Your task to perform on an android device: Open Google Chrome and open the bookmarks view Image 0: 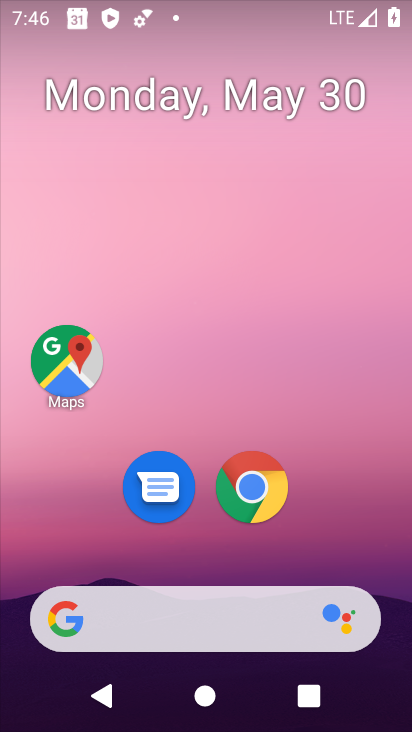
Step 0: click (250, 486)
Your task to perform on an android device: Open Google Chrome and open the bookmarks view Image 1: 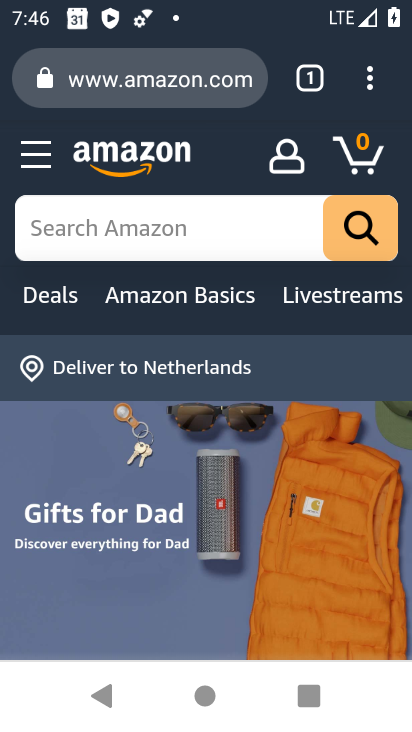
Step 1: click (361, 83)
Your task to perform on an android device: Open Google Chrome and open the bookmarks view Image 2: 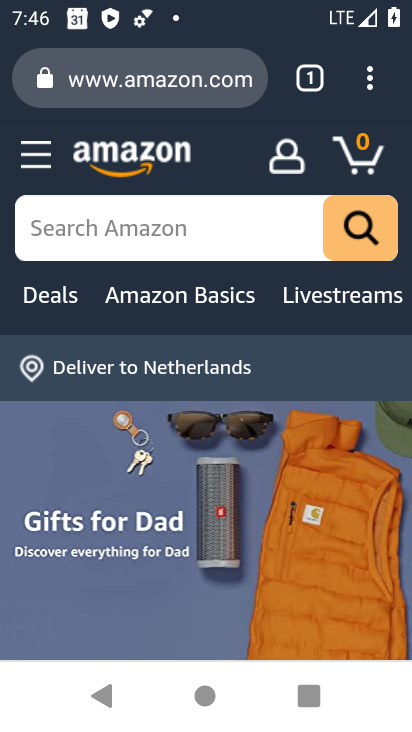
Step 2: click (367, 77)
Your task to perform on an android device: Open Google Chrome and open the bookmarks view Image 3: 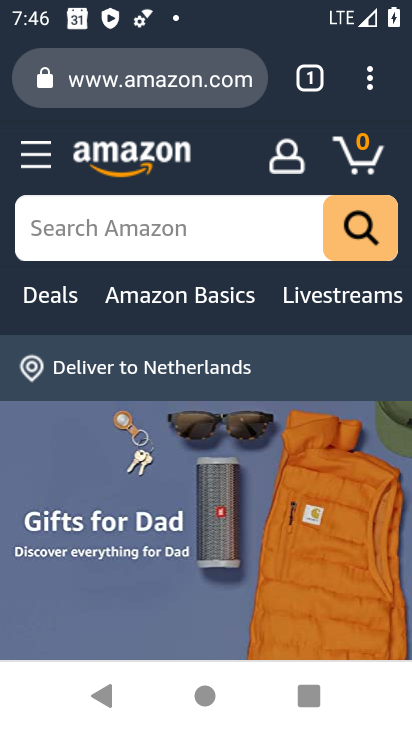
Step 3: click (367, 77)
Your task to perform on an android device: Open Google Chrome and open the bookmarks view Image 4: 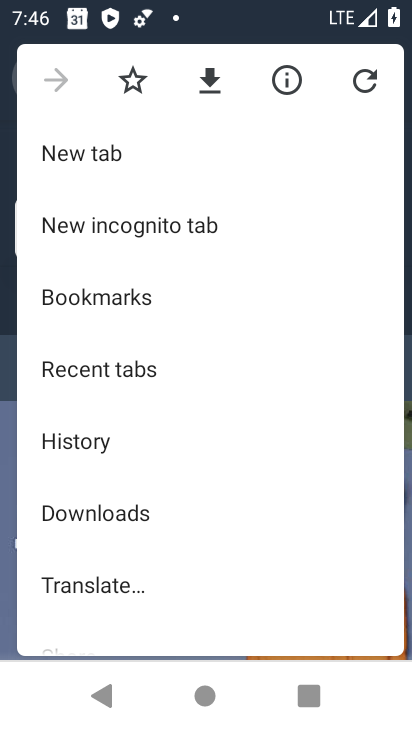
Step 4: drag from (276, 583) to (277, 295)
Your task to perform on an android device: Open Google Chrome and open the bookmarks view Image 5: 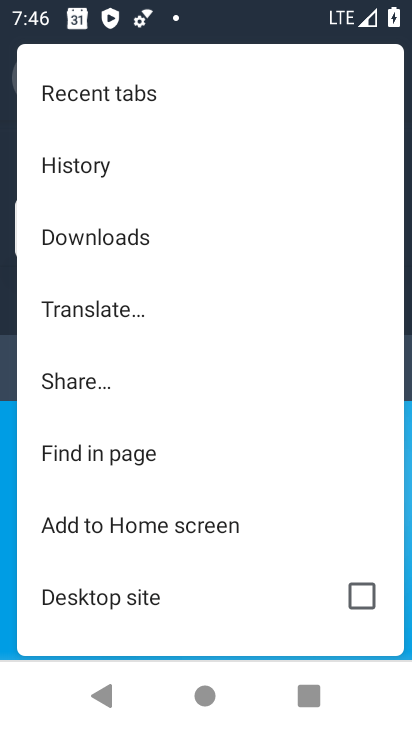
Step 5: drag from (284, 590) to (280, 257)
Your task to perform on an android device: Open Google Chrome and open the bookmarks view Image 6: 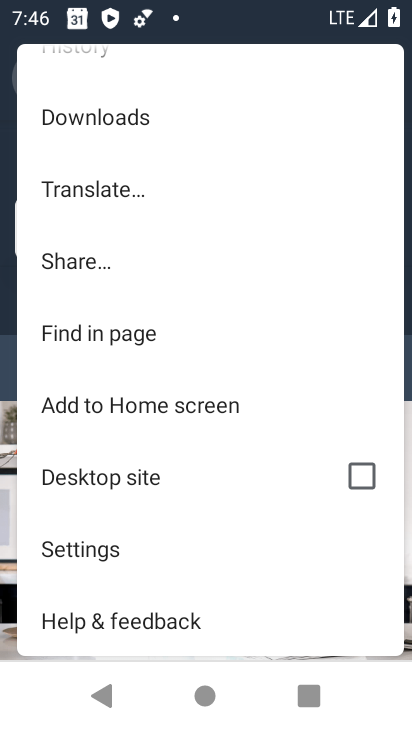
Step 6: drag from (267, 593) to (248, 248)
Your task to perform on an android device: Open Google Chrome and open the bookmarks view Image 7: 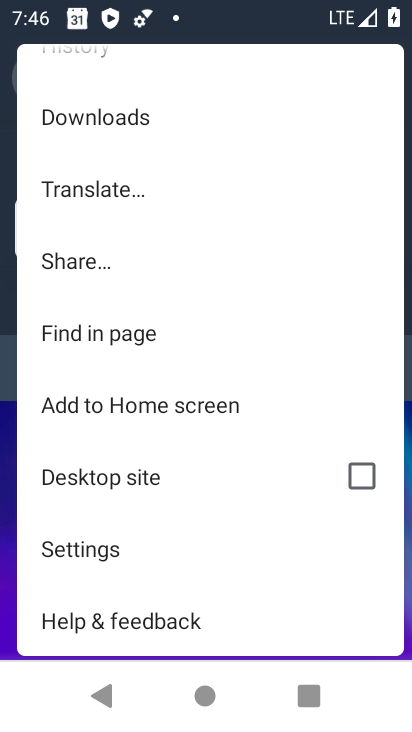
Step 7: drag from (235, 572) to (228, 209)
Your task to perform on an android device: Open Google Chrome and open the bookmarks view Image 8: 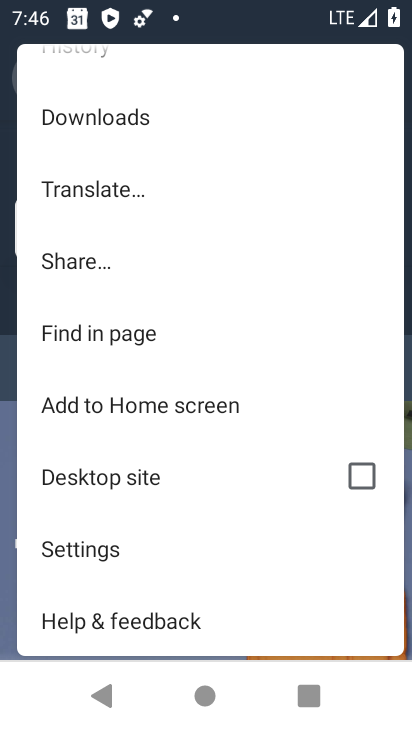
Step 8: click (83, 546)
Your task to perform on an android device: Open Google Chrome and open the bookmarks view Image 9: 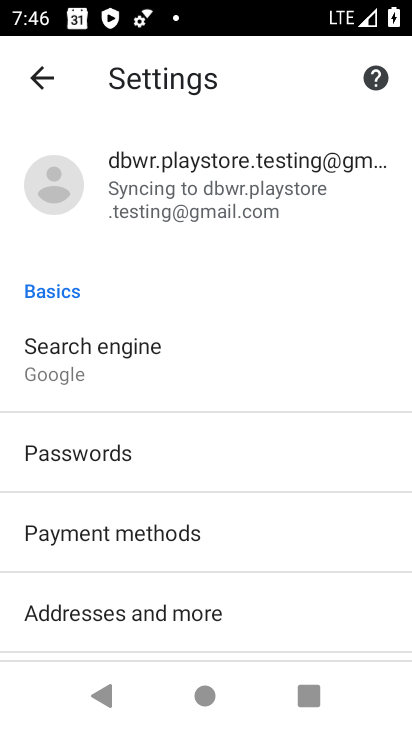
Step 9: drag from (313, 518) to (320, 277)
Your task to perform on an android device: Open Google Chrome and open the bookmarks view Image 10: 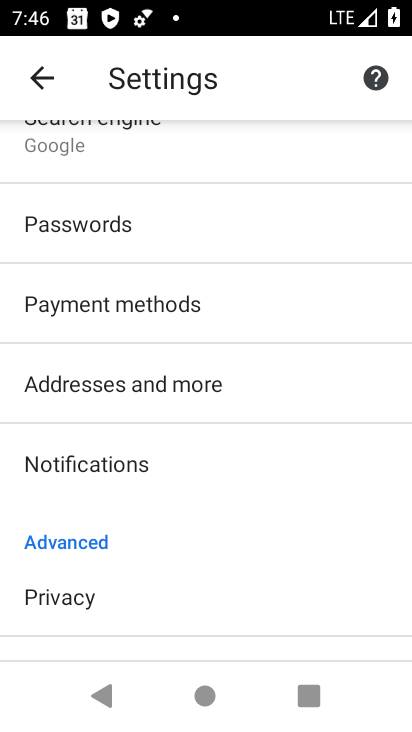
Step 10: drag from (286, 573) to (296, 245)
Your task to perform on an android device: Open Google Chrome and open the bookmarks view Image 11: 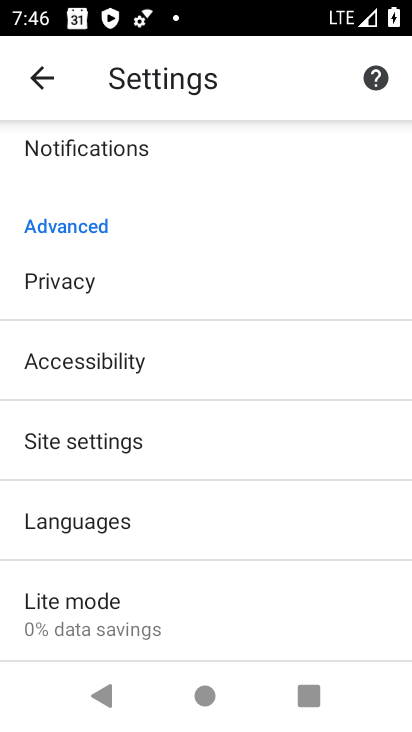
Step 11: drag from (251, 618) to (274, 327)
Your task to perform on an android device: Open Google Chrome and open the bookmarks view Image 12: 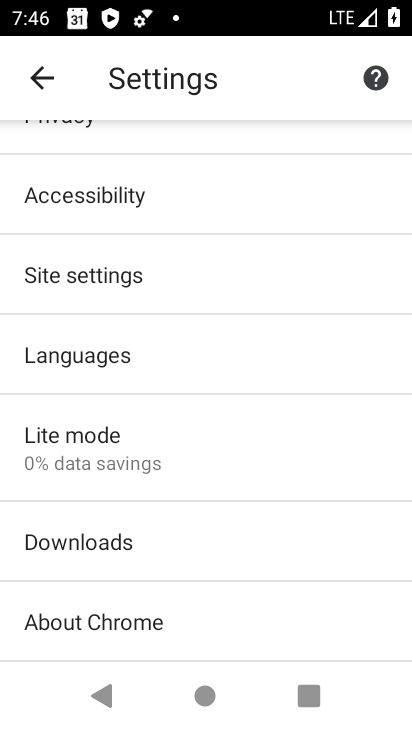
Step 12: drag from (234, 620) to (273, 293)
Your task to perform on an android device: Open Google Chrome and open the bookmarks view Image 13: 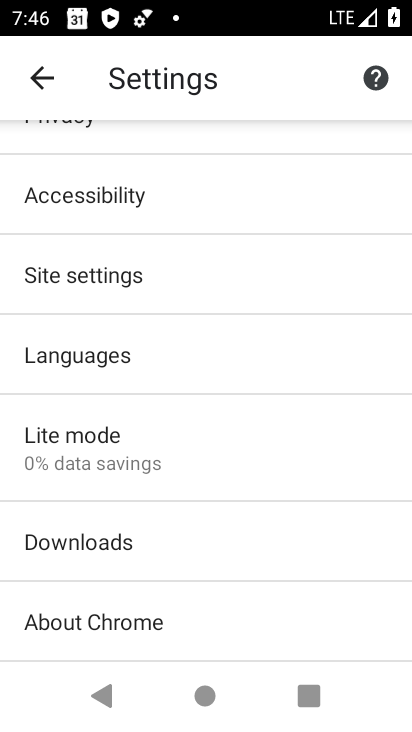
Step 13: drag from (214, 269) to (211, 615)
Your task to perform on an android device: Open Google Chrome and open the bookmarks view Image 14: 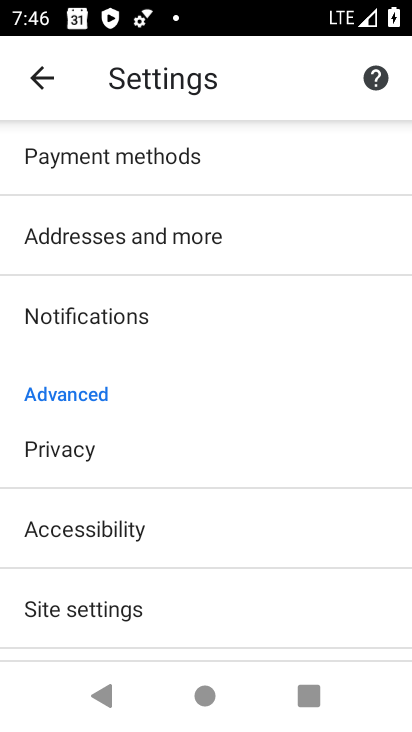
Step 14: click (30, 77)
Your task to perform on an android device: Open Google Chrome and open the bookmarks view Image 15: 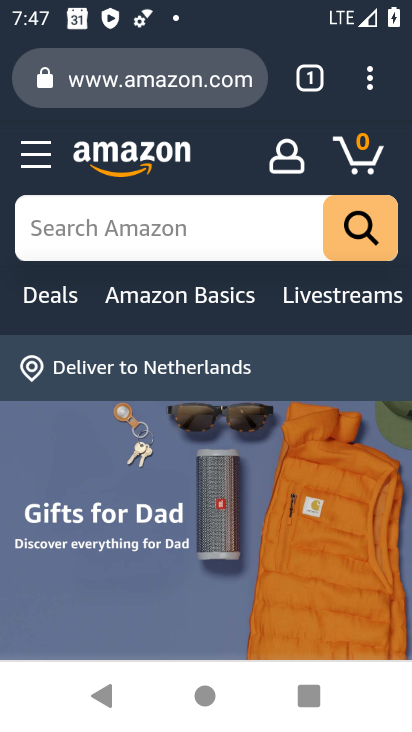
Step 15: click (366, 68)
Your task to perform on an android device: Open Google Chrome and open the bookmarks view Image 16: 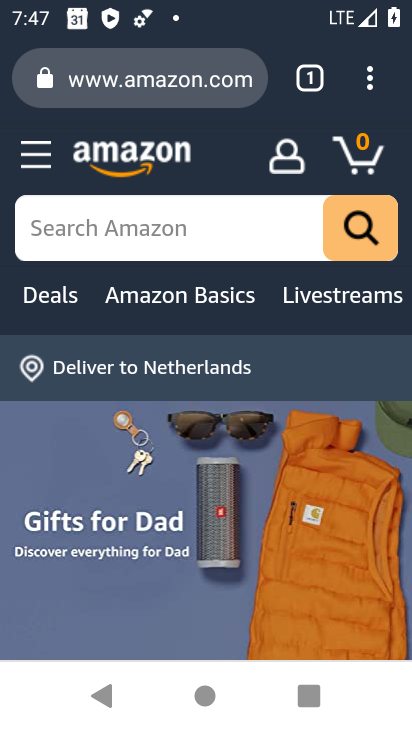
Step 16: click (366, 70)
Your task to perform on an android device: Open Google Chrome and open the bookmarks view Image 17: 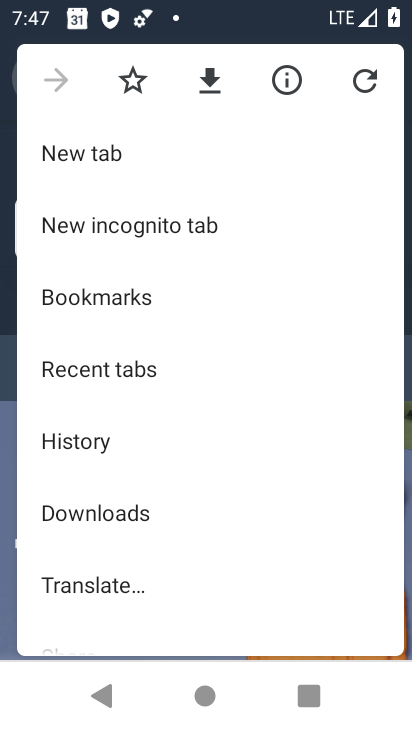
Step 17: click (111, 294)
Your task to perform on an android device: Open Google Chrome and open the bookmarks view Image 18: 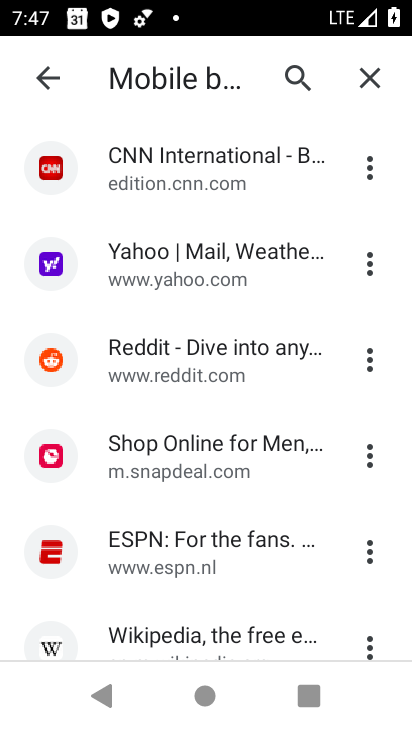
Step 18: task complete